Your task to perform on an android device: Search for sushi restaurants on Maps Image 0: 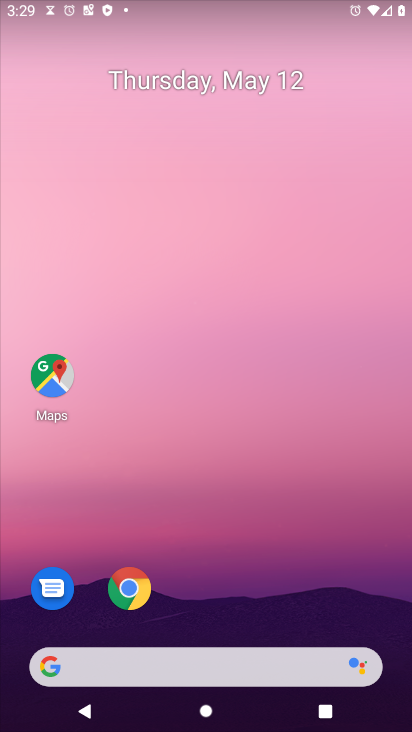
Step 0: click (193, 32)
Your task to perform on an android device: Search for sushi restaurants on Maps Image 1: 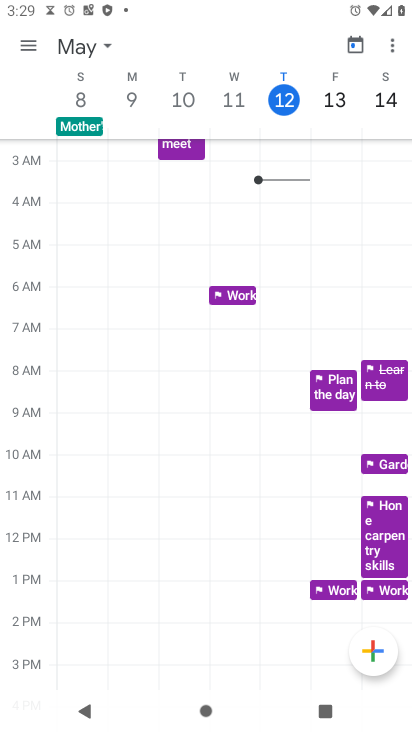
Step 1: press back button
Your task to perform on an android device: Search for sushi restaurants on Maps Image 2: 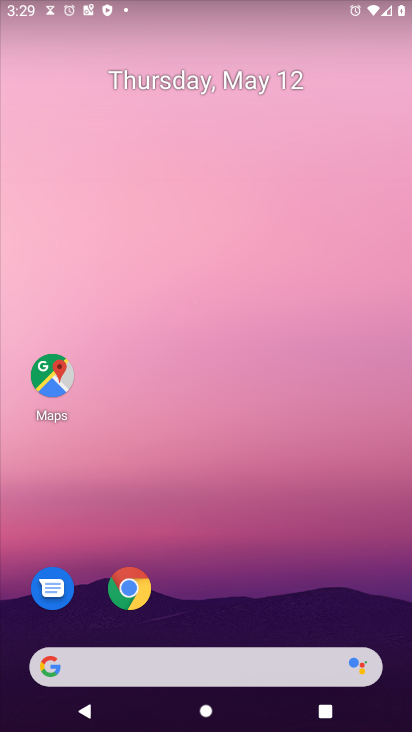
Step 2: drag from (227, 451) to (202, 18)
Your task to perform on an android device: Search for sushi restaurants on Maps Image 3: 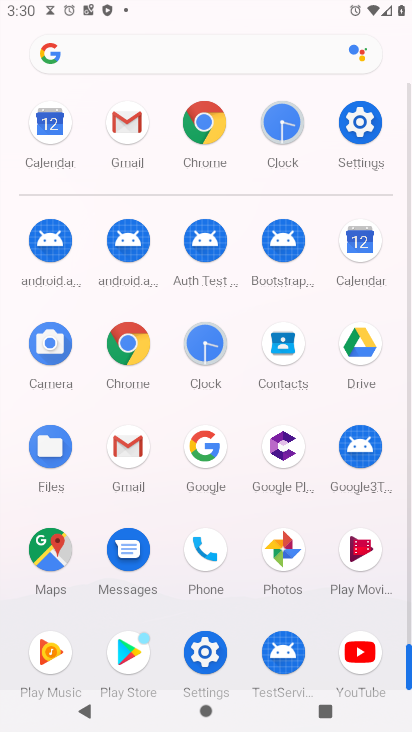
Step 3: click (49, 547)
Your task to perform on an android device: Search for sushi restaurants on Maps Image 4: 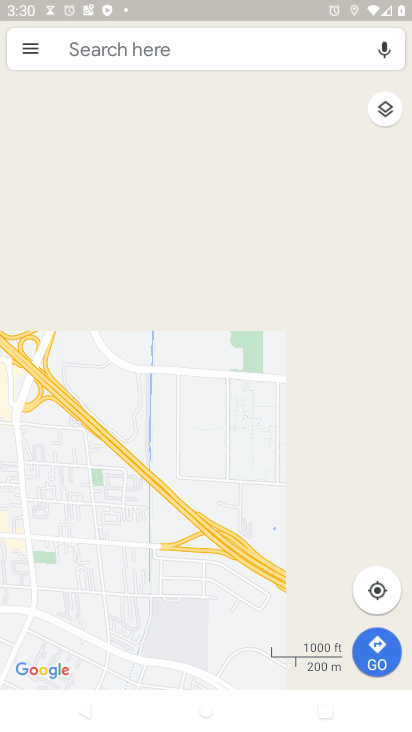
Step 4: click (192, 44)
Your task to perform on an android device: Search for sushi restaurants on Maps Image 5: 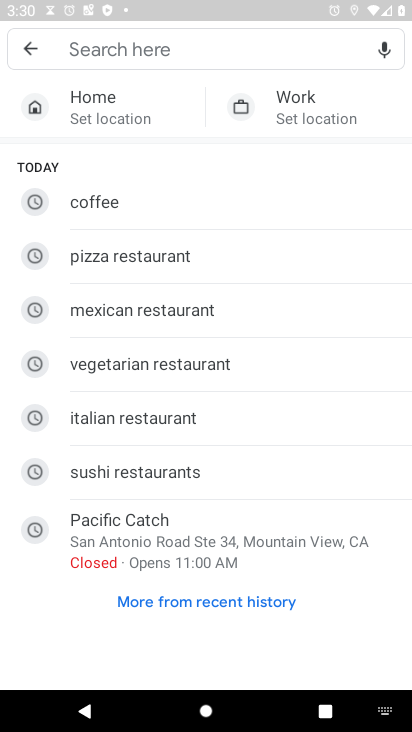
Step 5: click (132, 478)
Your task to perform on an android device: Search for sushi restaurants on Maps Image 6: 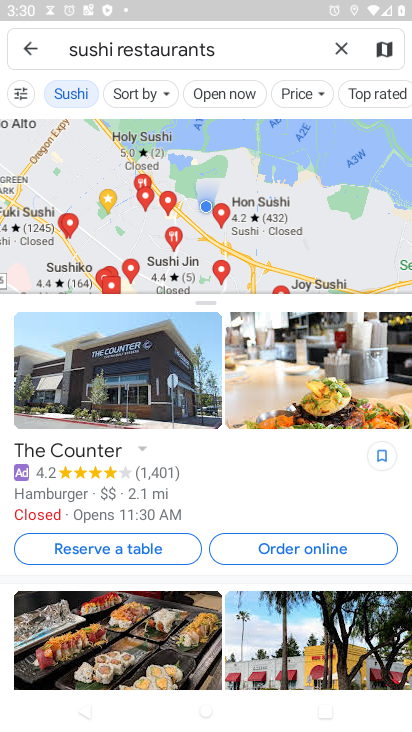
Step 6: task complete